Your task to perform on an android device: Open Google Maps Image 0: 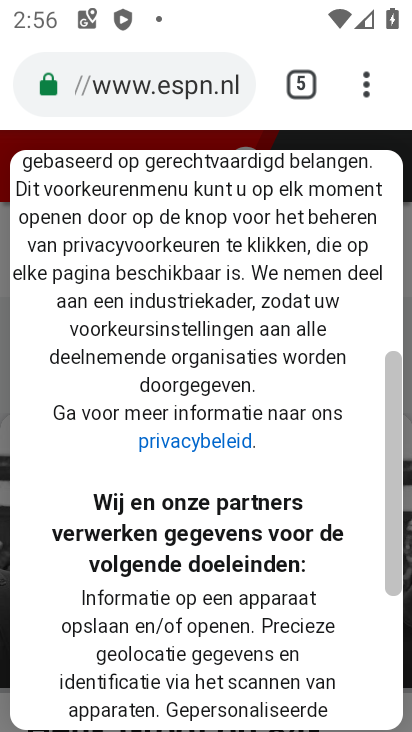
Step 0: press home button
Your task to perform on an android device: Open Google Maps Image 1: 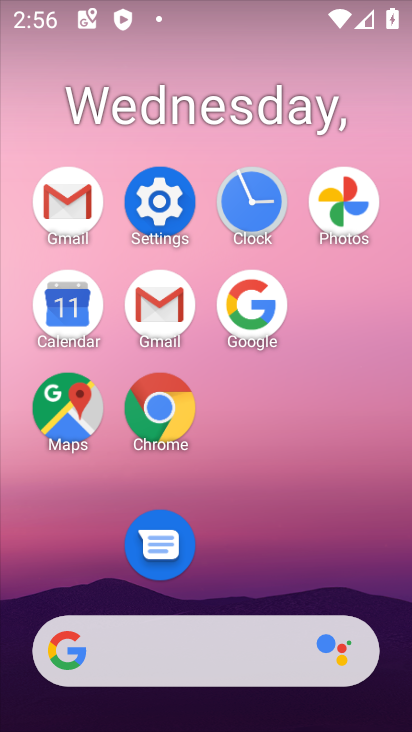
Step 1: click (68, 398)
Your task to perform on an android device: Open Google Maps Image 2: 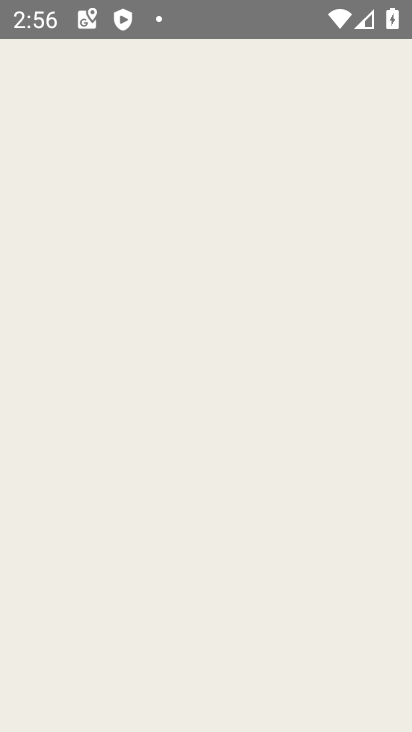
Step 2: task complete